Your task to perform on an android device: Open the Play Movies app and select the watchlist tab. Image 0: 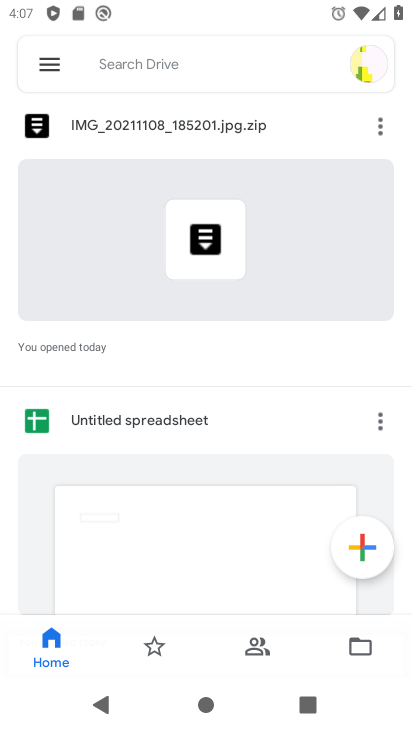
Step 0: press home button
Your task to perform on an android device: Open the Play Movies app and select the watchlist tab. Image 1: 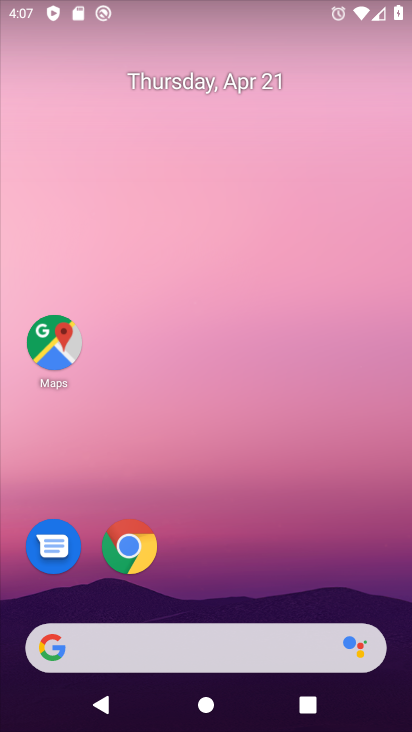
Step 1: drag from (247, 582) to (259, 142)
Your task to perform on an android device: Open the Play Movies app and select the watchlist tab. Image 2: 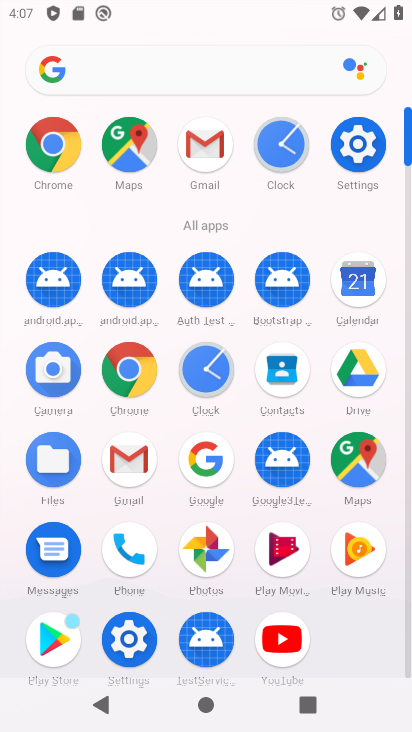
Step 2: click (292, 546)
Your task to perform on an android device: Open the Play Movies app and select the watchlist tab. Image 3: 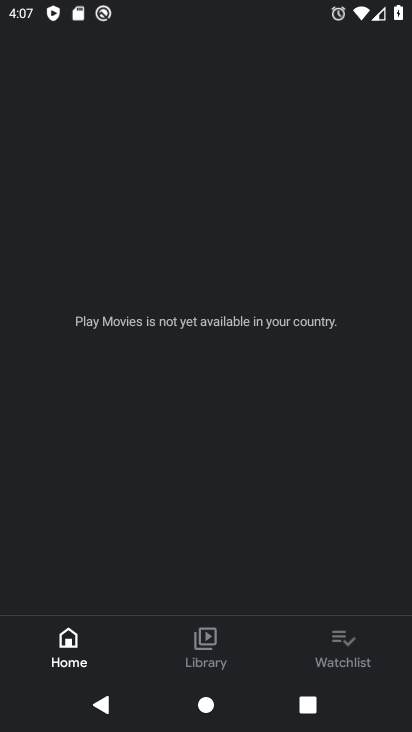
Step 3: click (331, 639)
Your task to perform on an android device: Open the Play Movies app and select the watchlist tab. Image 4: 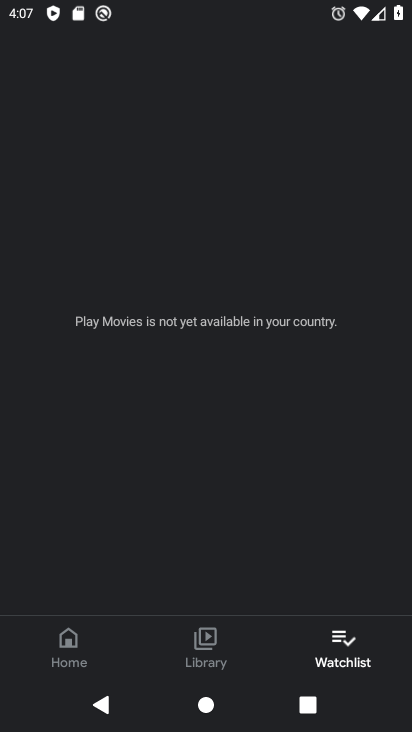
Step 4: task complete